Your task to perform on an android device: What is the news today? Image 0: 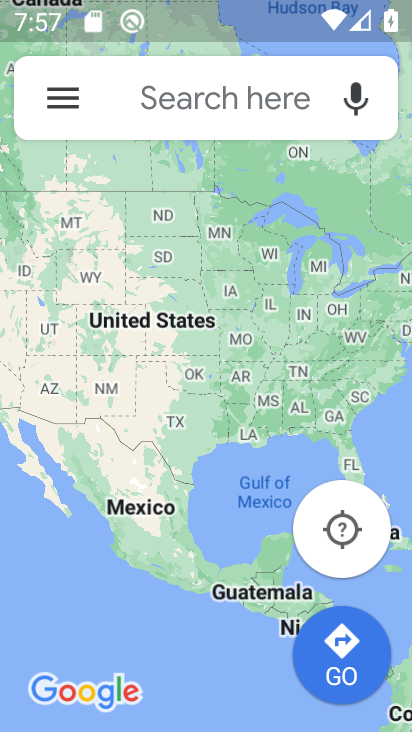
Step 0: press home button
Your task to perform on an android device: What is the news today? Image 1: 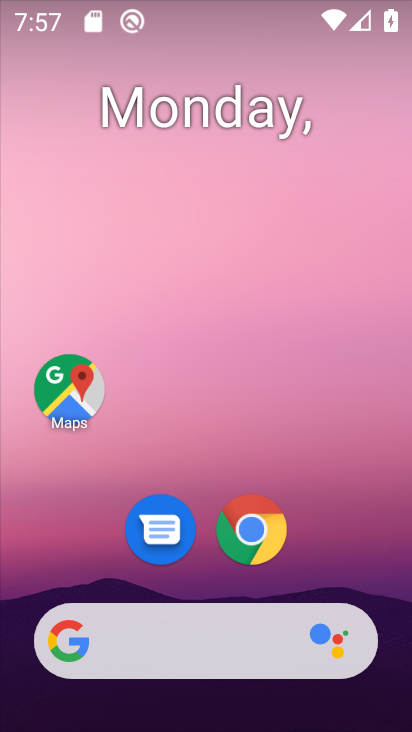
Step 1: drag from (219, 609) to (217, 169)
Your task to perform on an android device: What is the news today? Image 2: 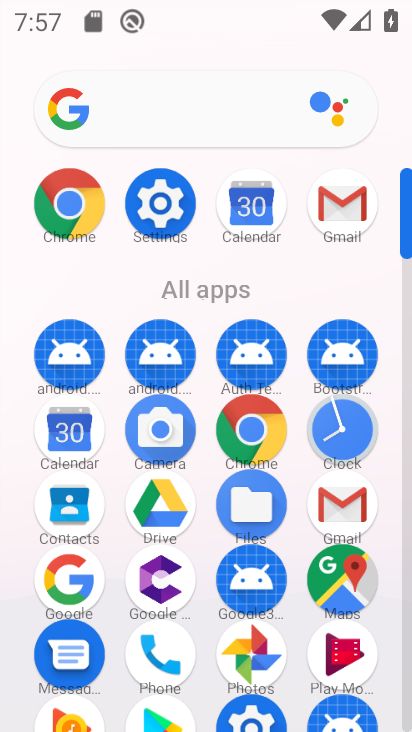
Step 2: click (77, 571)
Your task to perform on an android device: What is the news today? Image 3: 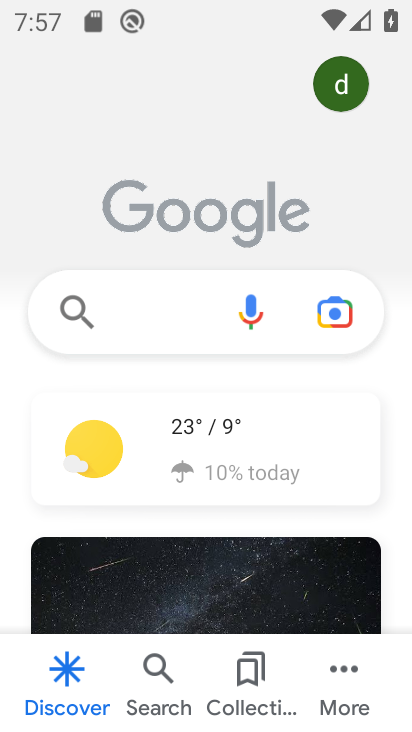
Step 3: click (131, 313)
Your task to perform on an android device: What is the news today? Image 4: 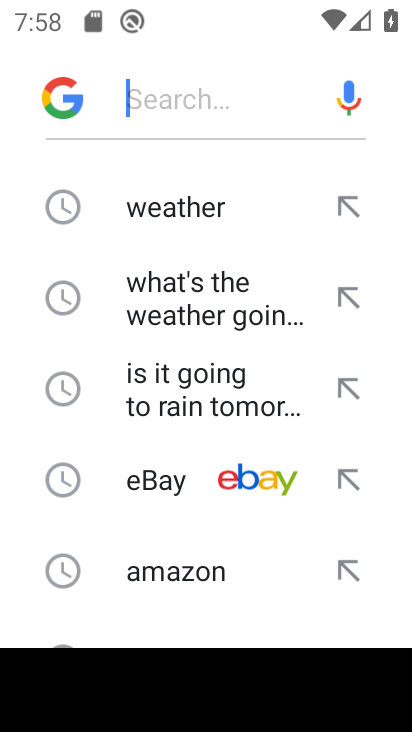
Step 4: drag from (220, 564) to (235, 164)
Your task to perform on an android device: What is the news today? Image 5: 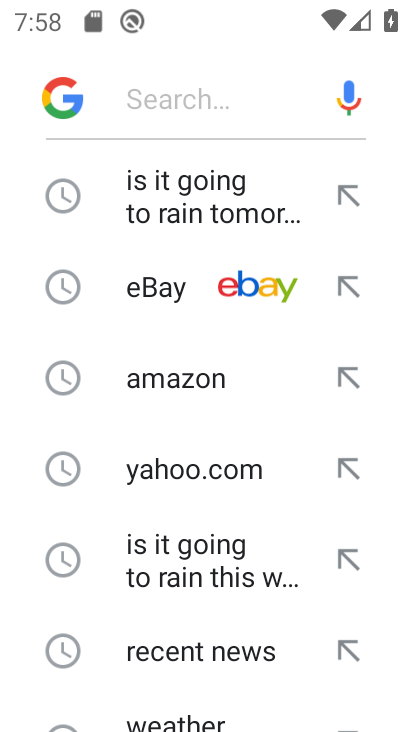
Step 5: drag from (181, 670) to (195, 274)
Your task to perform on an android device: What is the news today? Image 6: 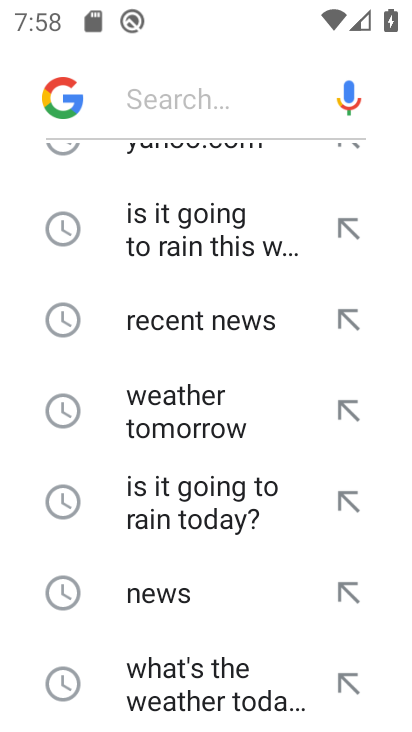
Step 6: drag from (172, 688) to (196, 287)
Your task to perform on an android device: What is the news today? Image 7: 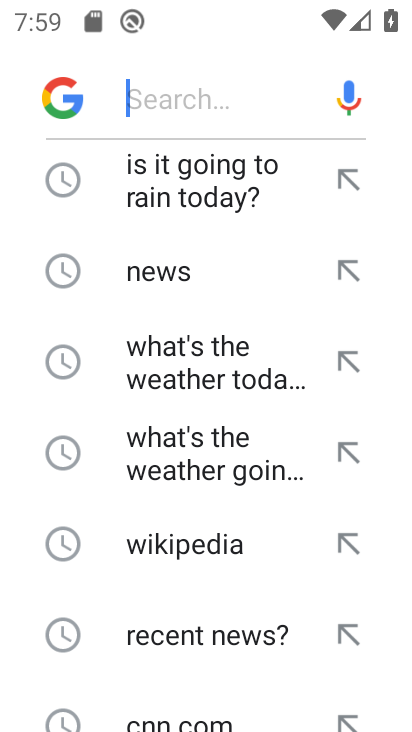
Step 7: drag from (176, 668) to (202, 264)
Your task to perform on an android device: What is the news today? Image 8: 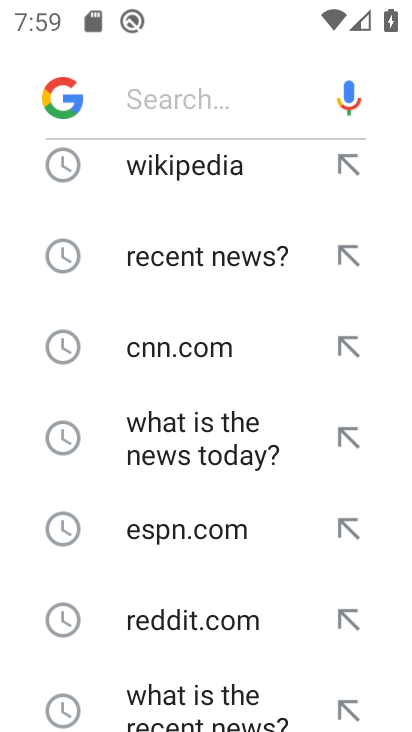
Step 8: click (199, 704)
Your task to perform on an android device: What is the news today? Image 9: 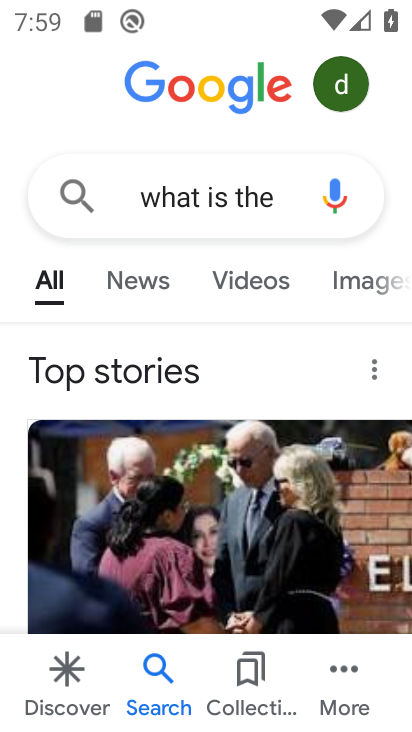
Step 9: task complete